Your task to perform on an android device: check out phone information Image 0: 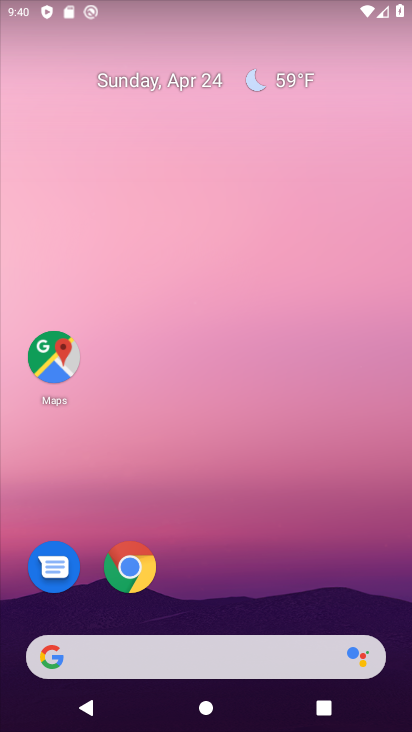
Step 0: drag from (383, 506) to (346, 271)
Your task to perform on an android device: check out phone information Image 1: 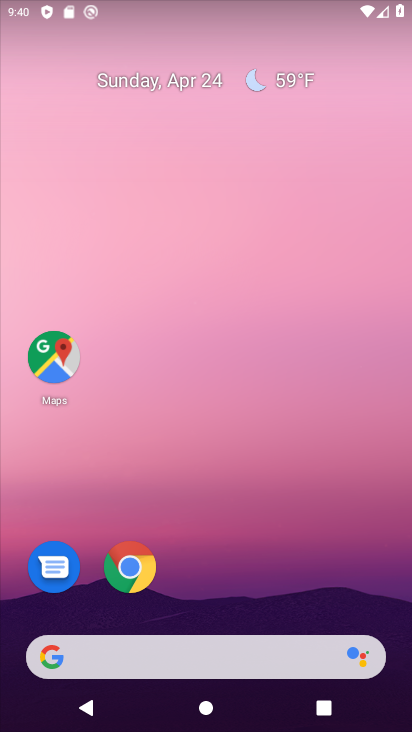
Step 1: drag from (376, 335) to (354, 192)
Your task to perform on an android device: check out phone information Image 2: 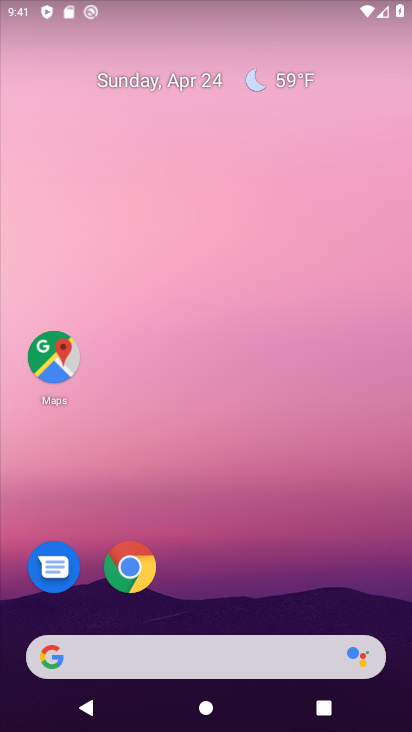
Step 2: drag from (389, 454) to (384, 297)
Your task to perform on an android device: check out phone information Image 3: 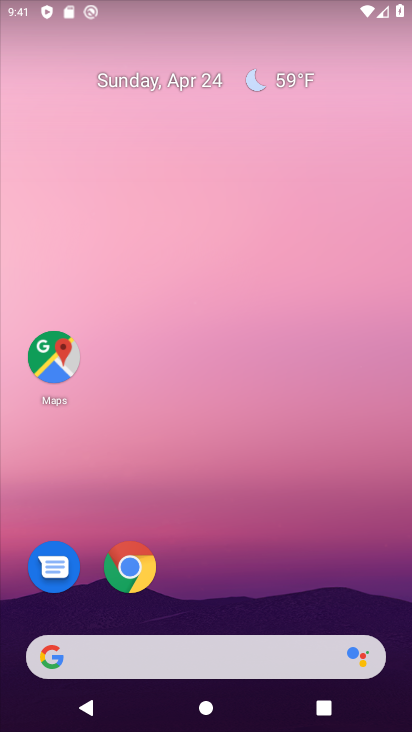
Step 3: drag from (385, 320) to (376, 242)
Your task to perform on an android device: check out phone information Image 4: 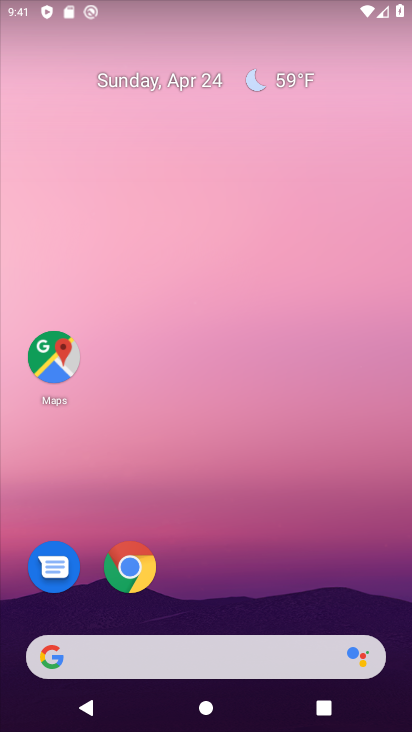
Step 4: drag from (366, 538) to (333, 79)
Your task to perform on an android device: check out phone information Image 5: 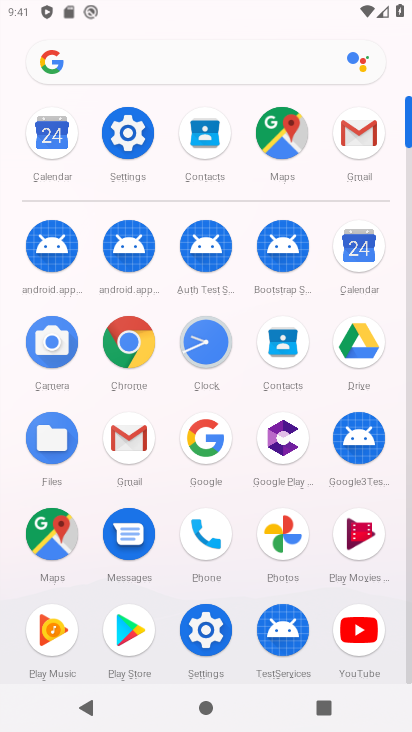
Step 5: click (215, 624)
Your task to perform on an android device: check out phone information Image 6: 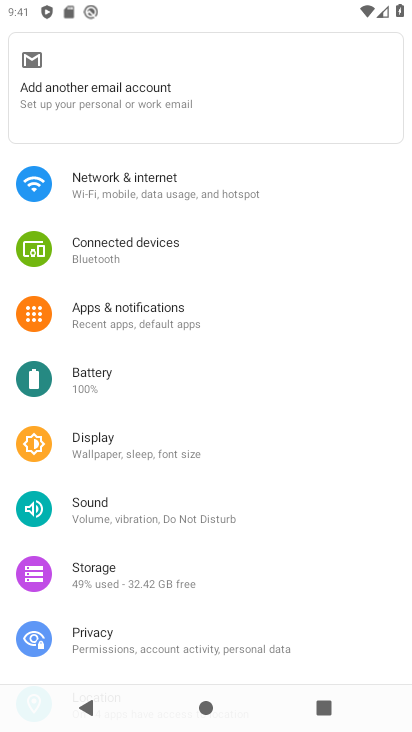
Step 6: click (378, 163)
Your task to perform on an android device: check out phone information Image 7: 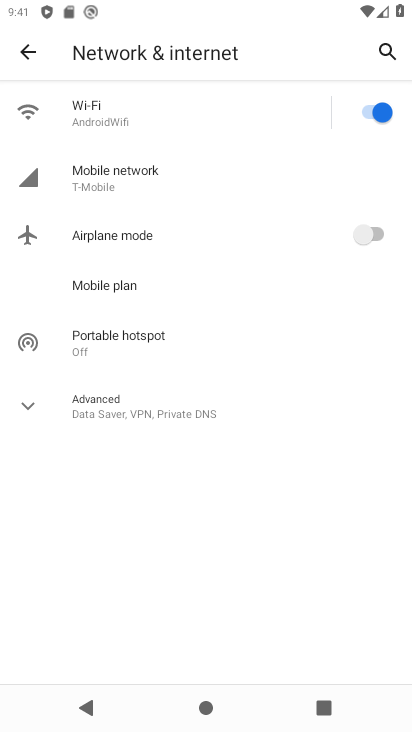
Step 7: click (23, 45)
Your task to perform on an android device: check out phone information Image 8: 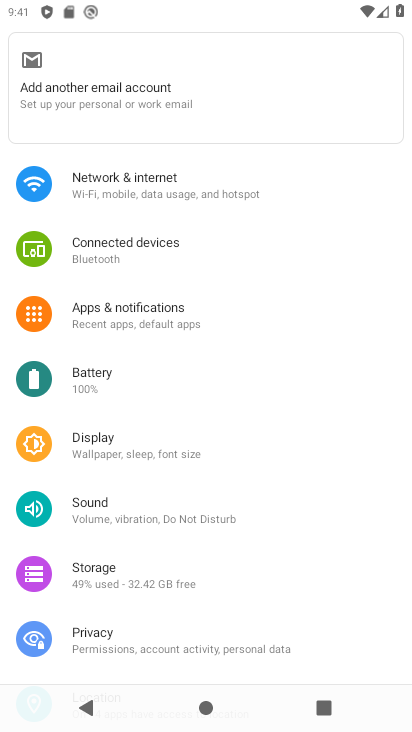
Step 8: drag from (344, 548) to (361, 220)
Your task to perform on an android device: check out phone information Image 9: 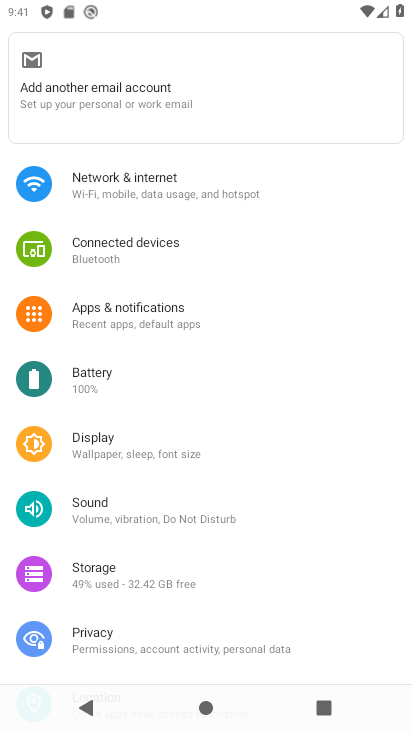
Step 9: drag from (349, 599) to (347, 229)
Your task to perform on an android device: check out phone information Image 10: 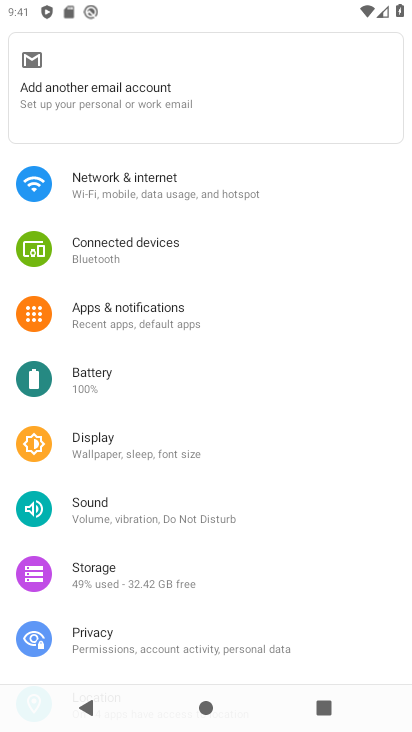
Step 10: drag from (369, 366) to (372, 244)
Your task to perform on an android device: check out phone information Image 11: 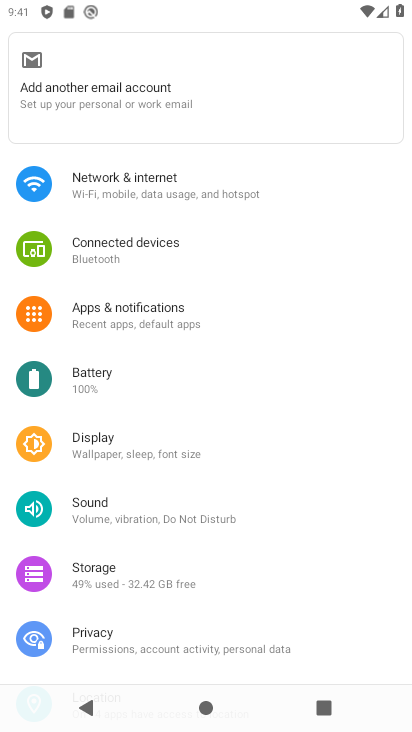
Step 11: drag from (381, 380) to (375, 191)
Your task to perform on an android device: check out phone information Image 12: 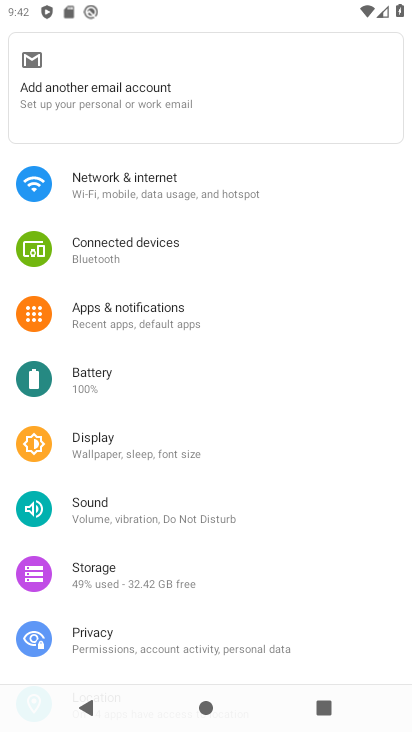
Step 12: drag from (357, 652) to (342, 133)
Your task to perform on an android device: check out phone information Image 13: 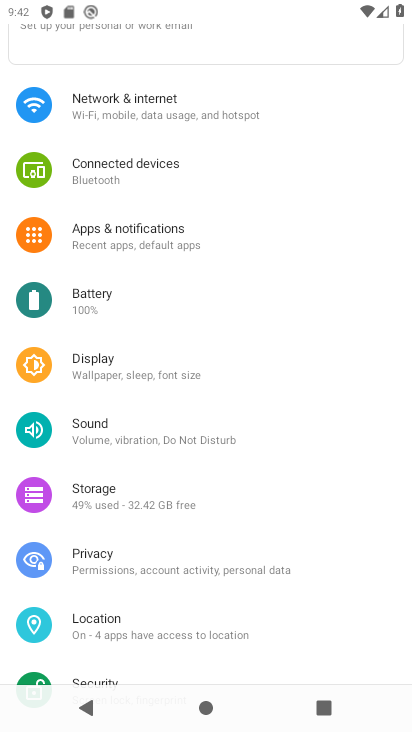
Step 13: drag from (358, 652) to (347, 327)
Your task to perform on an android device: check out phone information Image 14: 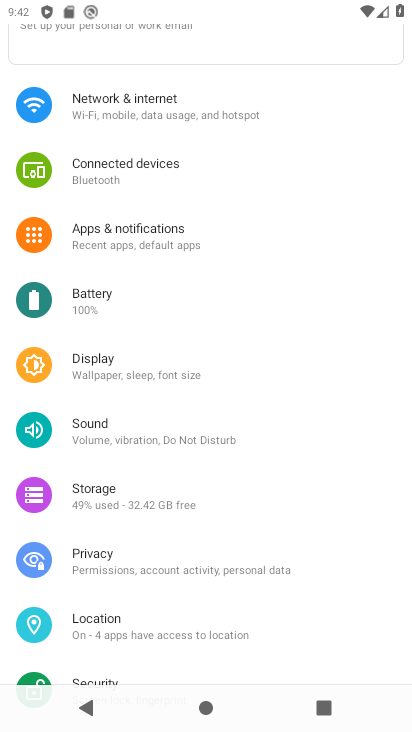
Step 14: drag from (363, 566) to (362, 192)
Your task to perform on an android device: check out phone information Image 15: 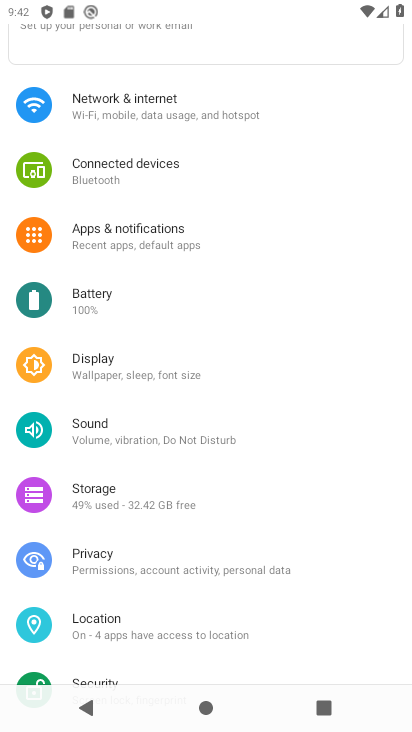
Step 15: drag from (338, 620) to (337, 253)
Your task to perform on an android device: check out phone information Image 16: 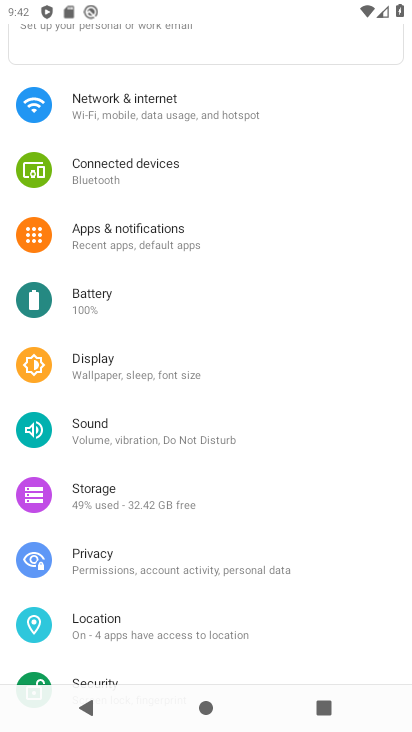
Step 16: drag from (361, 636) to (362, 273)
Your task to perform on an android device: check out phone information Image 17: 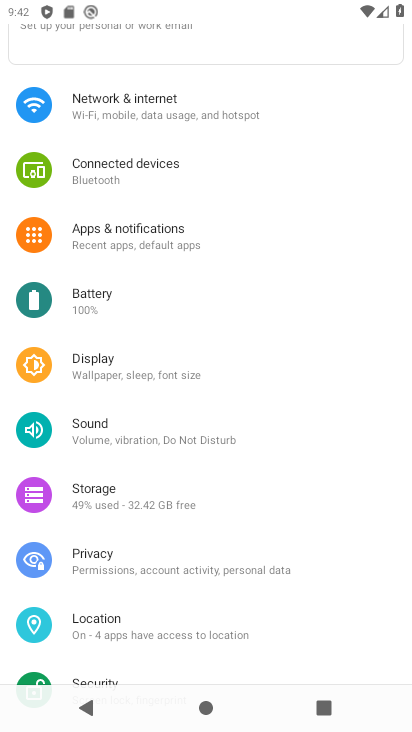
Step 17: drag from (355, 668) to (386, 192)
Your task to perform on an android device: check out phone information Image 18: 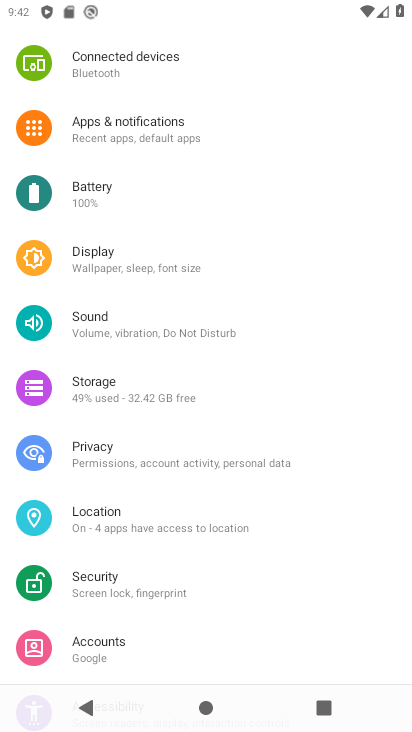
Step 18: click (378, 186)
Your task to perform on an android device: check out phone information Image 19: 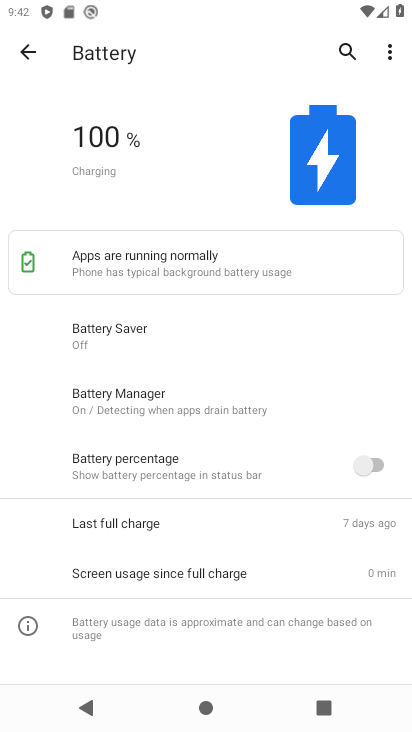
Step 19: drag from (376, 246) to (377, 141)
Your task to perform on an android device: check out phone information Image 20: 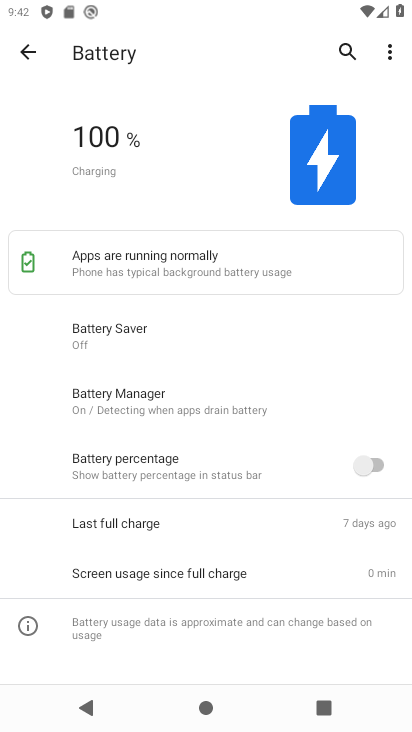
Step 20: click (24, 46)
Your task to perform on an android device: check out phone information Image 21: 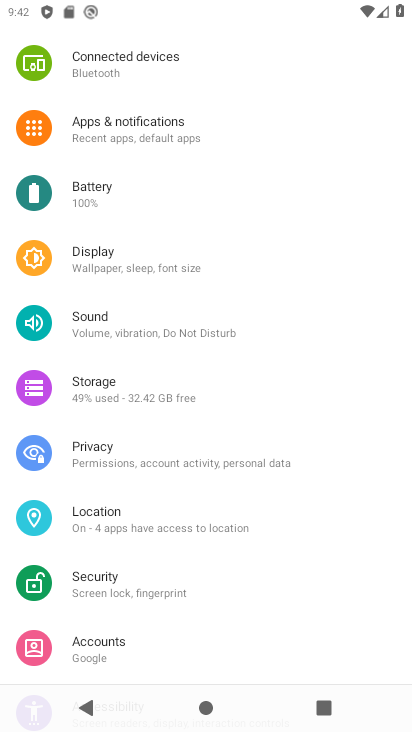
Step 21: drag from (352, 463) to (341, 183)
Your task to perform on an android device: check out phone information Image 22: 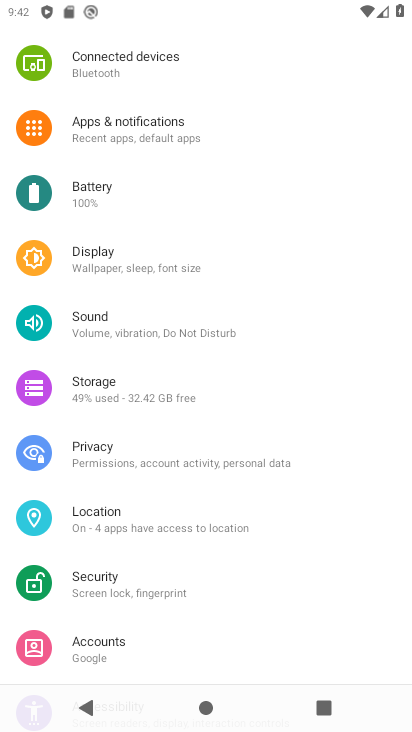
Step 22: drag from (355, 627) to (339, 190)
Your task to perform on an android device: check out phone information Image 23: 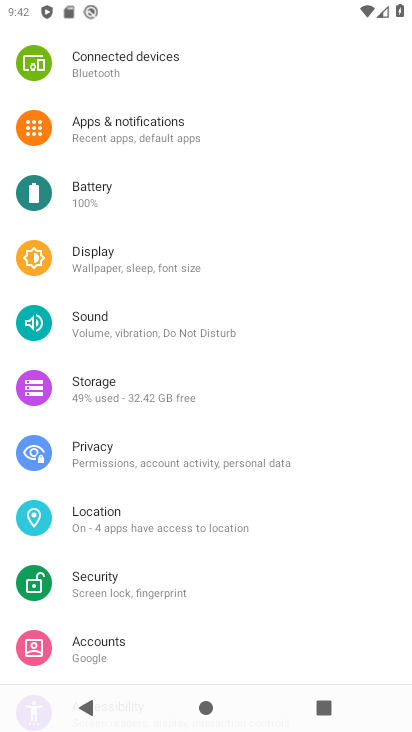
Step 23: drag from (325, 499) to (322, 182)
Your task to perform on an android device: check out phone information Image 24: 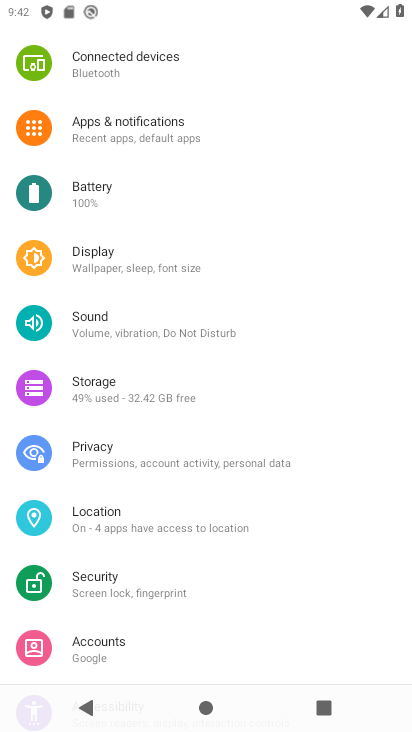
Step 24: drag from (340, 588) to (338, 166)
Your task to perform on an android device: check out phone information Image 25: 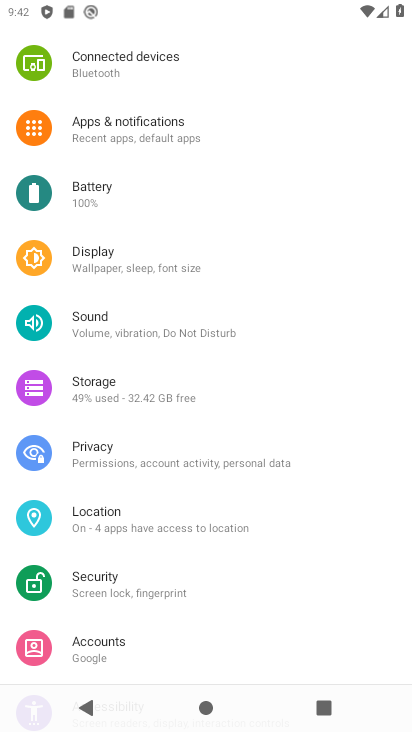
Step 25: drag from (339, 457) to (320, 247)
Your task to perform on an android device: check out phone information Image 26: 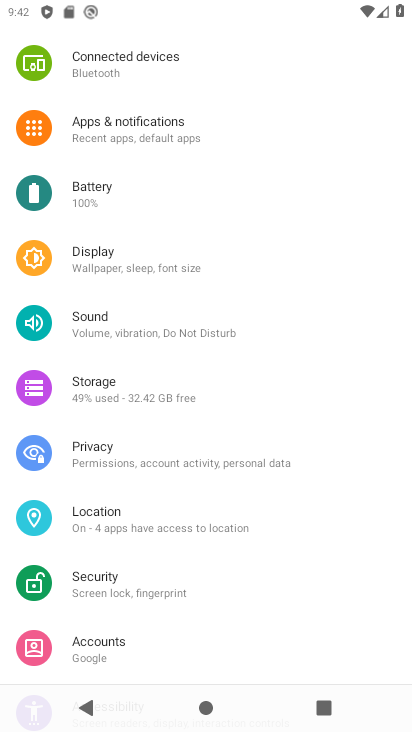
Step 26: drag from (331, 655) to (326, 214)
Your task to perform on an android device: check out phone information Image 27: 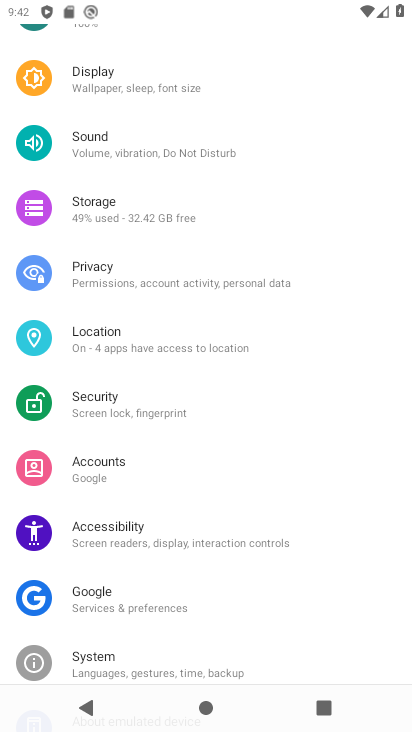
Step 27: drag from (310, 498) to (291, 121)
Your task to perform on an android device: check out phone information Image 28: 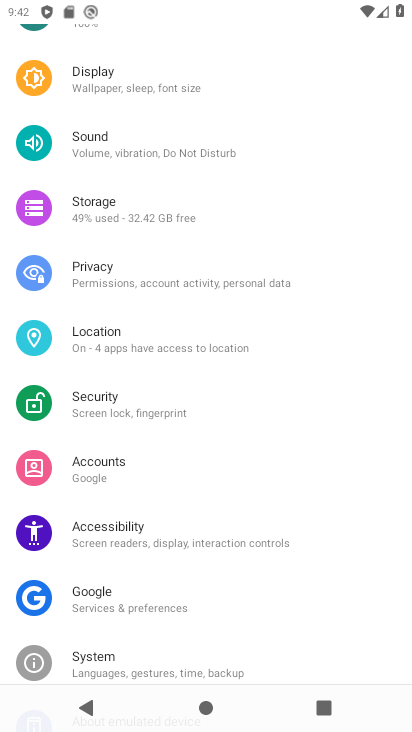
Step 28: drag from (328, 627) to (325, 240)
Your task to perform on an android device: check out phone information Image 29: 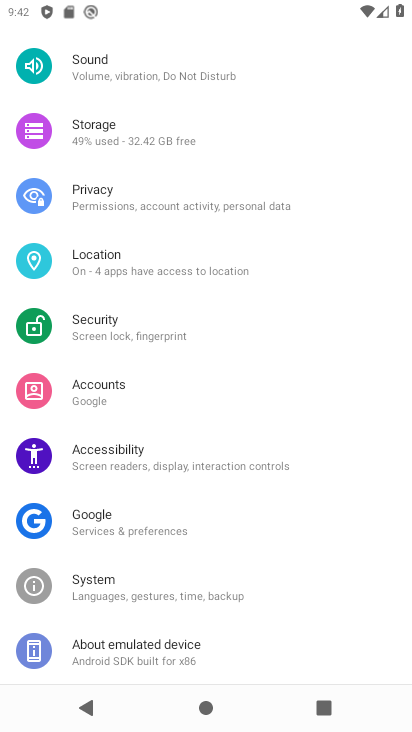
Step 29: click (127, 648)
Your task to perform on an android device: check out phone information Image 30: 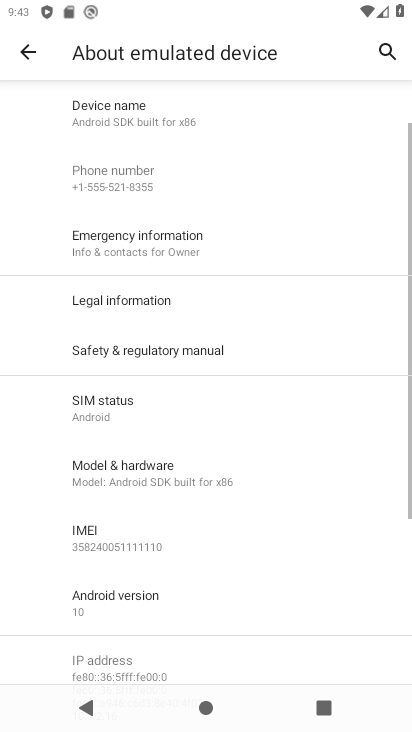
Step 30: task complete